Your task to perform on an android device: open app "Cash App" (install if not already installed), go to login, and select forgot password Image 0: 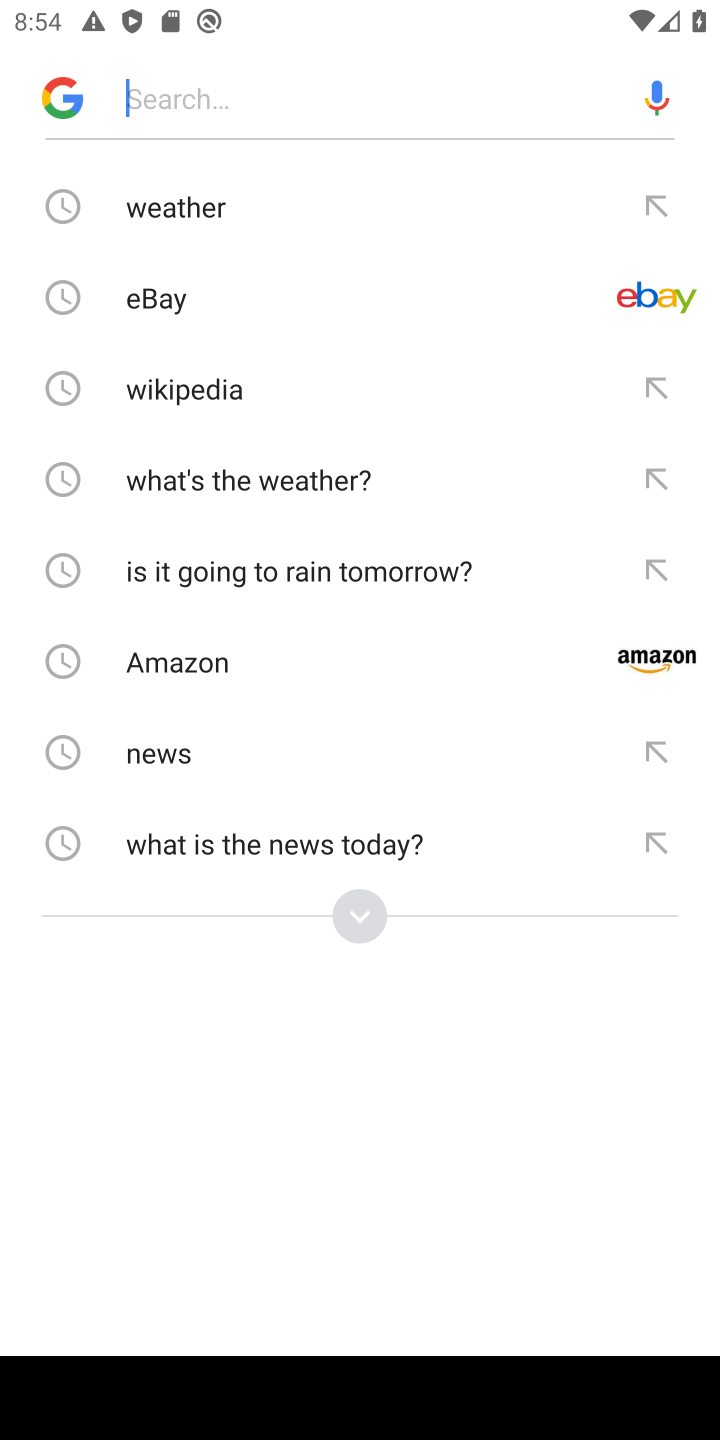
Step 0: press back button
Your task to perform on an android device: open app "Cash App" (install if not already installed), go to login, and select forgot password Image 1: 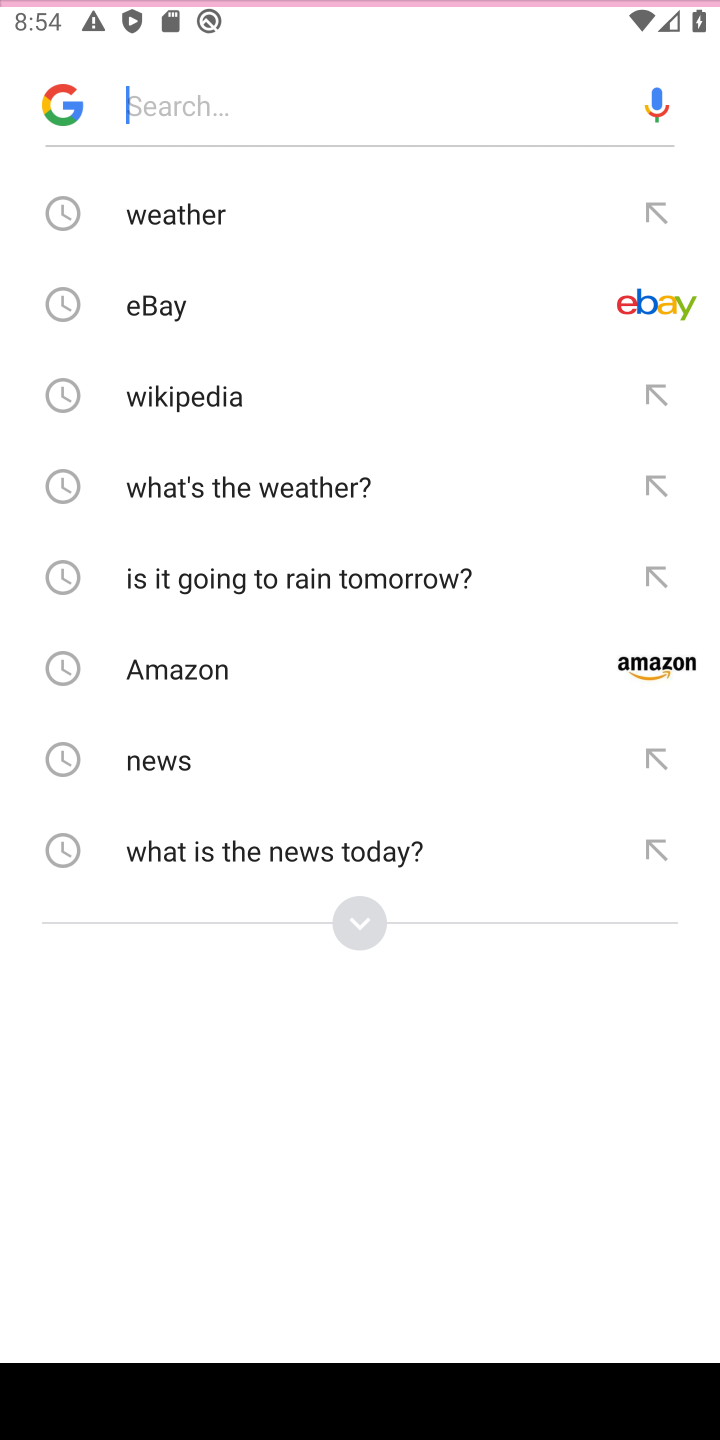
Step 1: press home button
Your task to perform on an android device: open app "Cash App" (install if not already installed), go to login, and select forgot password Image 2: 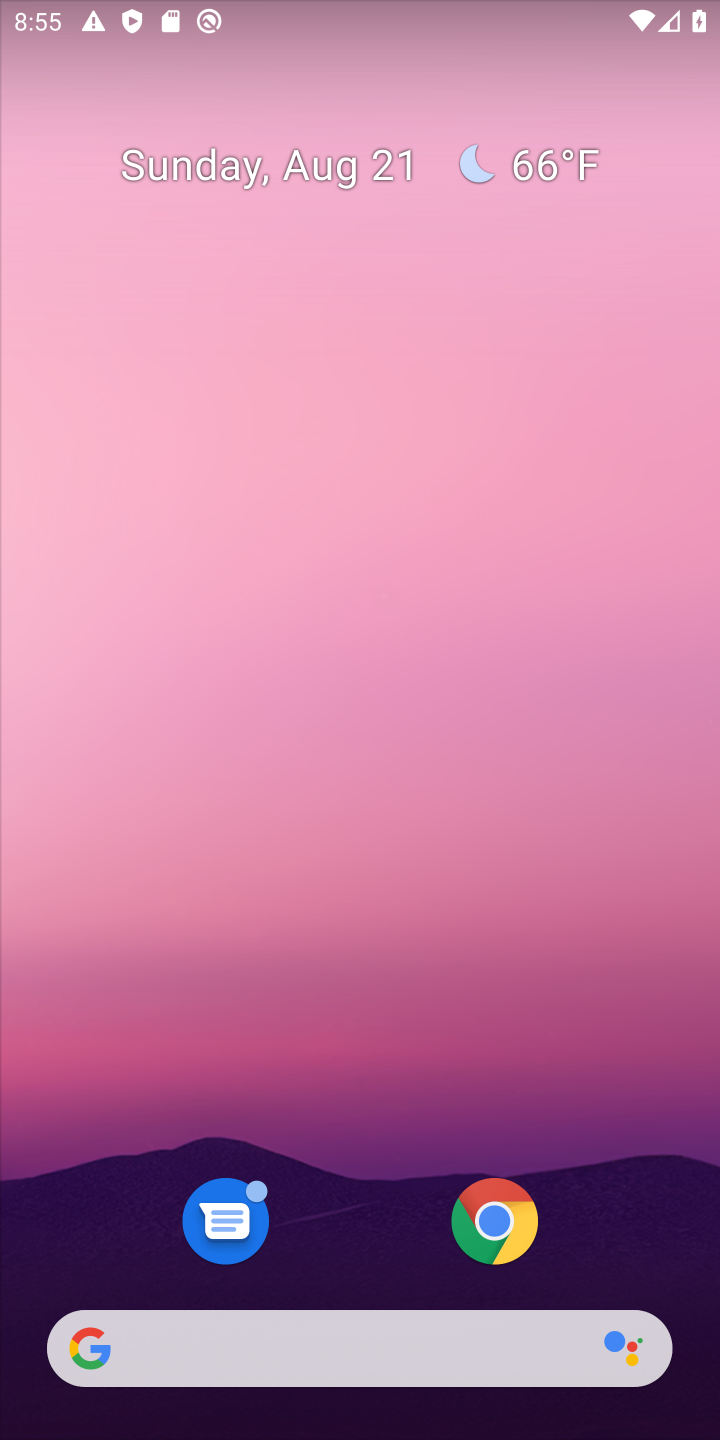
Step 2: drag from (352, 1155) to (457, 491)
Your task to perform on an android device: open app "Cash App" (install if not already installed), go to login, and select forgot password Image 3: 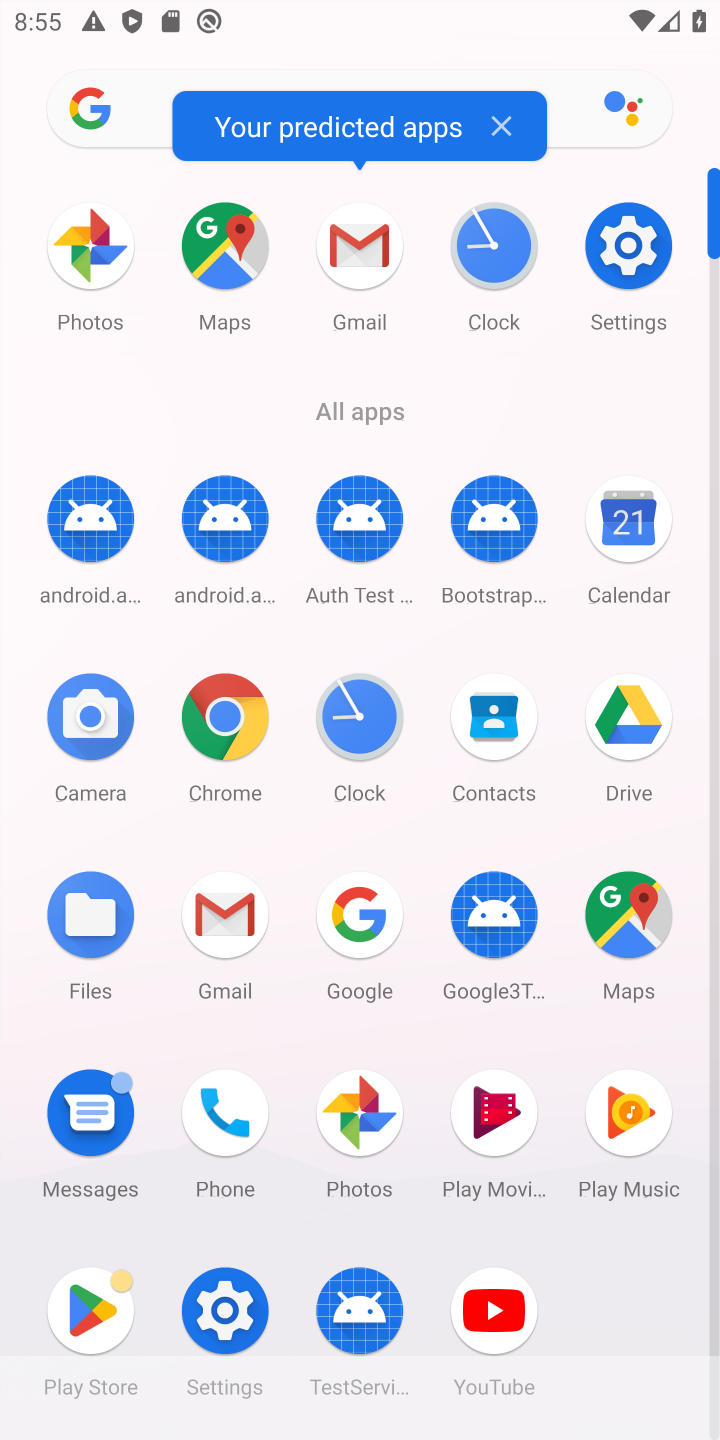
Step 3: click (106, 1303)
Your task to perform on an android device: open app "Cash App" (install if not already installed), go to login, and select forgot password Image 4: 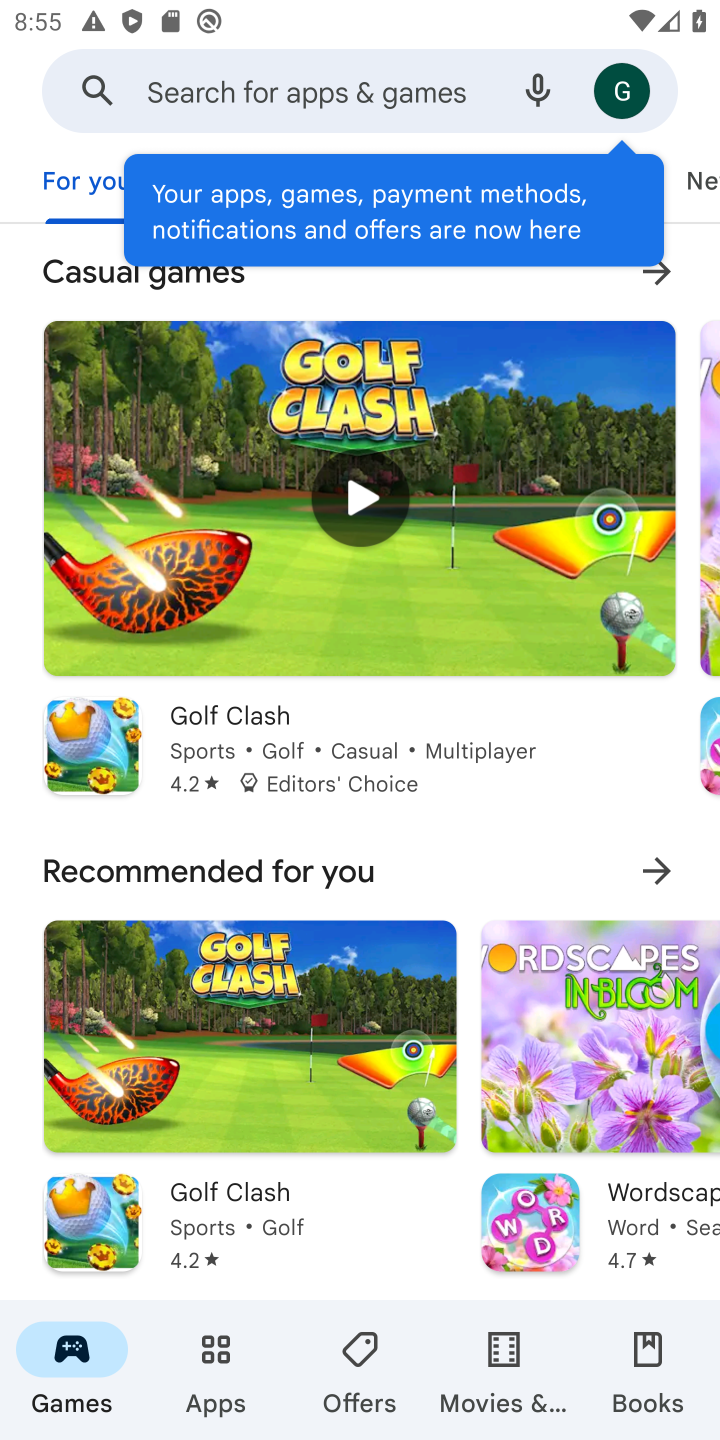
Step 4: click (279, 96)
Your task to perform on an android device: open app "Cash App" (install if not already installed), go to login, and select forgot password Image 5: 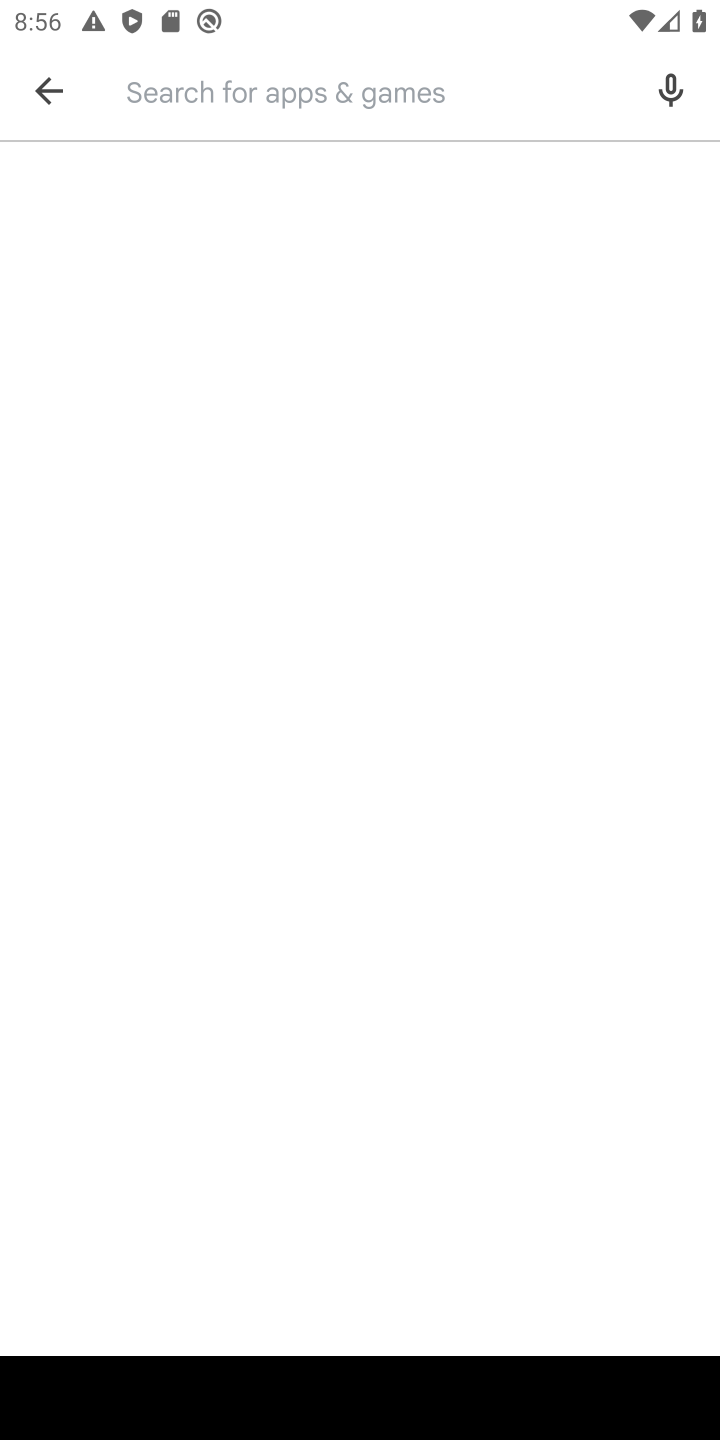
Step 5: type "Cash App"
Your task to perform on an android device: open app "Cash App" (install if not already installed), go to login, and select forgot password Image 6: 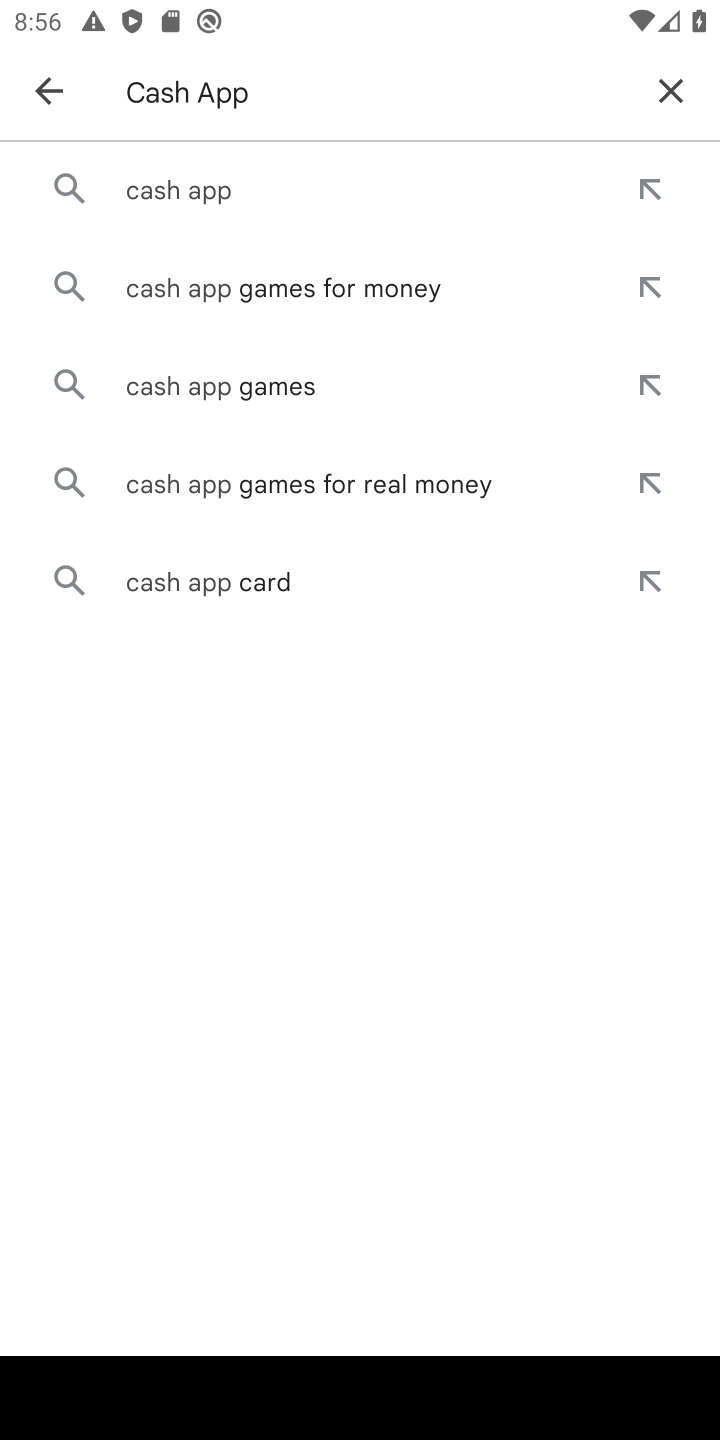
Step 6: type "Cash App"
Your task to perform on an android device: open app "Cash App" (install if not already installed), go to login, and select forgot password Image 7: 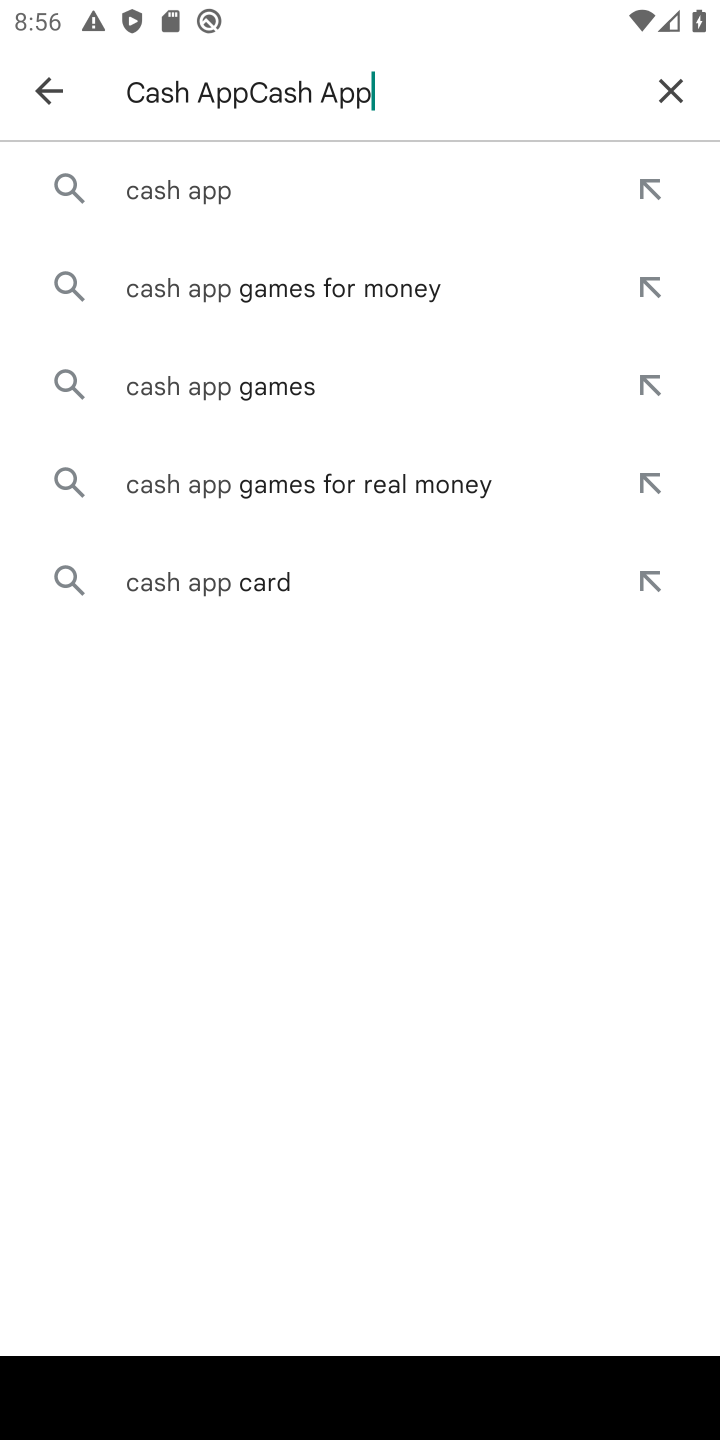
Step 7: type ""
Your task to perform on an android device: open app "Cash App" (install if not already installed), go to login, and select forgot password Image 8: 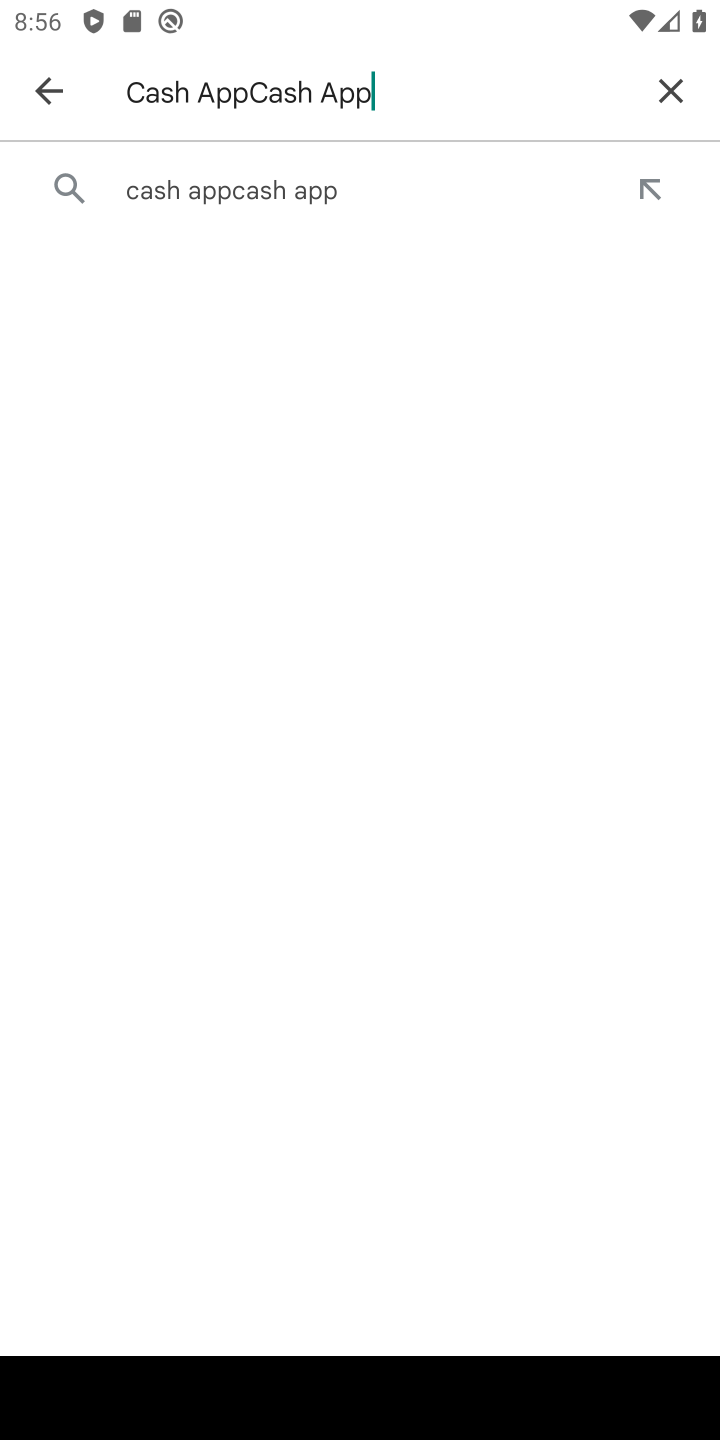
Step 8: click (289, 204)
Your task to perform on an android device: open app "Cash App" (install if not already installed), go to login, and select forgot password Image 9: 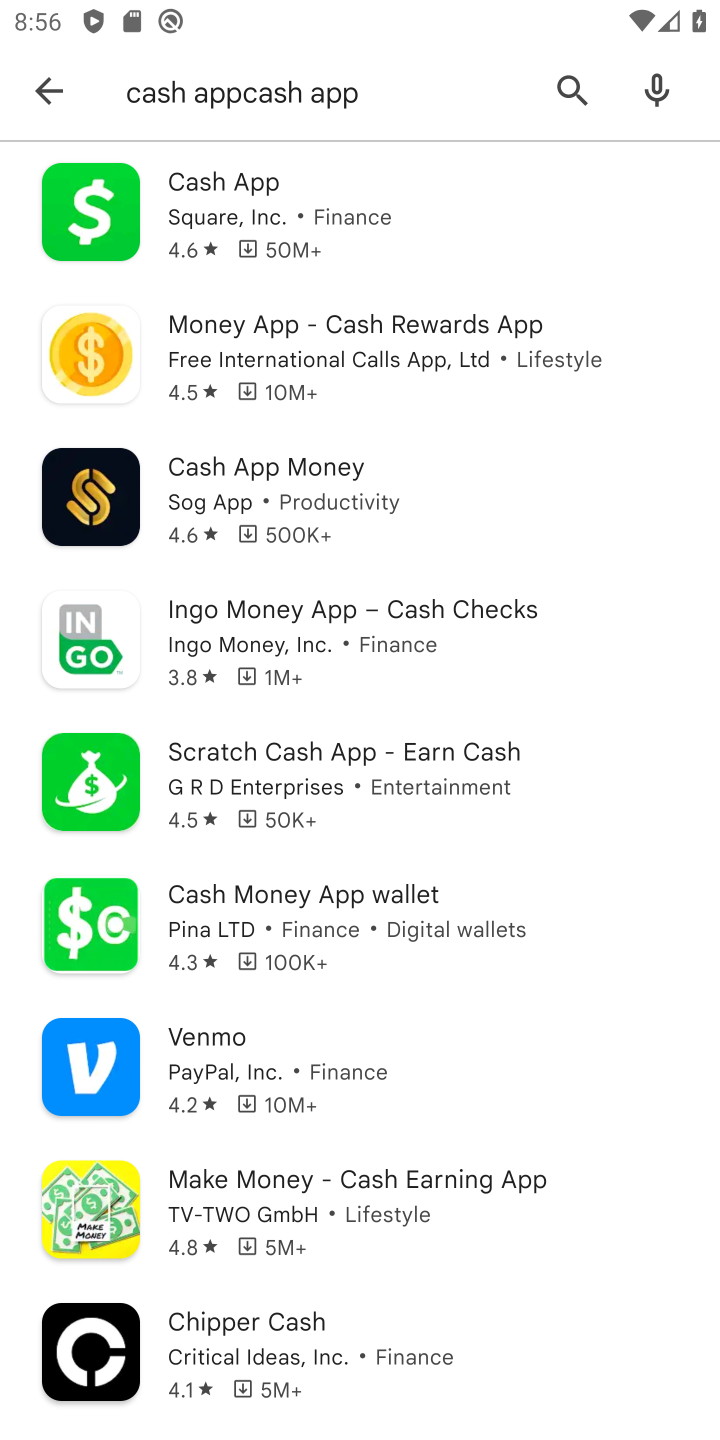
Step 9: click (289, 204)
Your task to perform on an android device: open app "Cash App" (install if not already installed), go to login, and select forgot password Image 10: 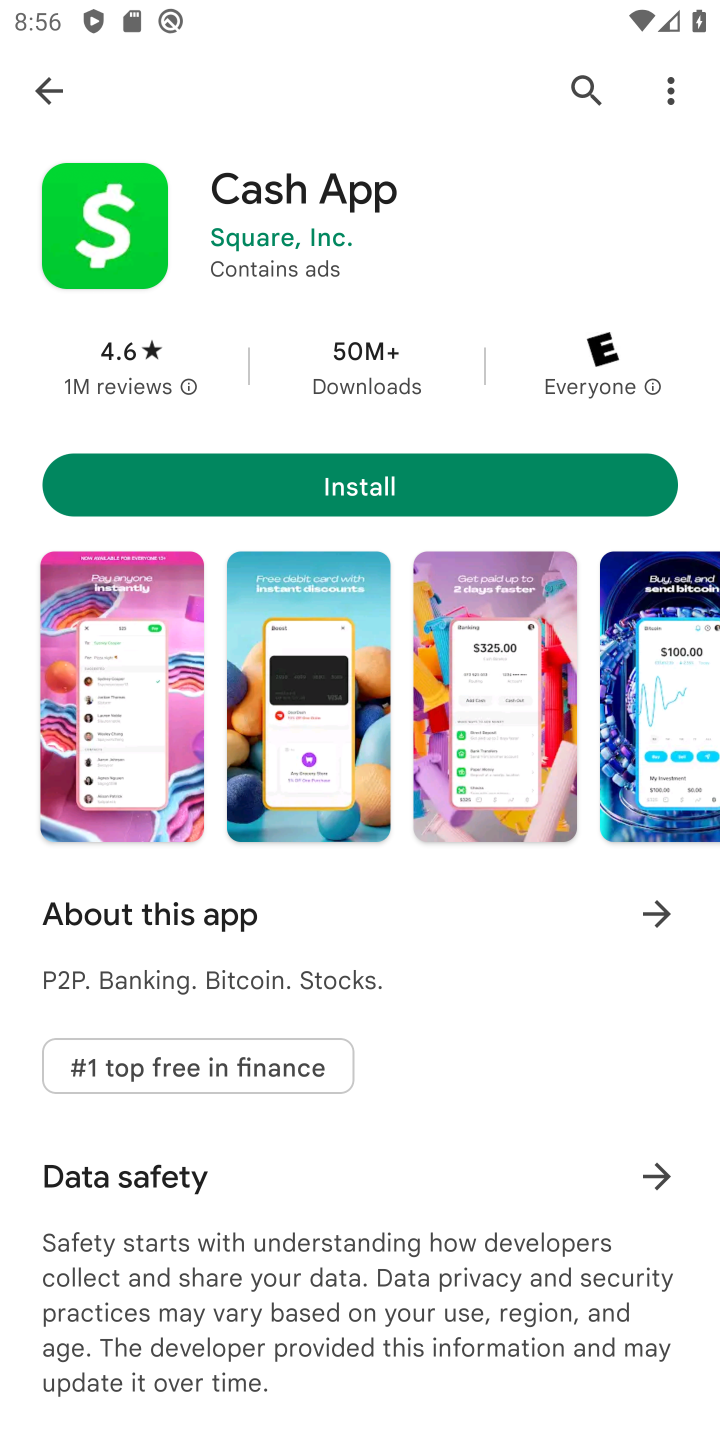
Step 10: click (399, 461)
Your task to perform on an android device: open app "Cash App" (install if not already installed), go to login, and select forgot password Image 11: 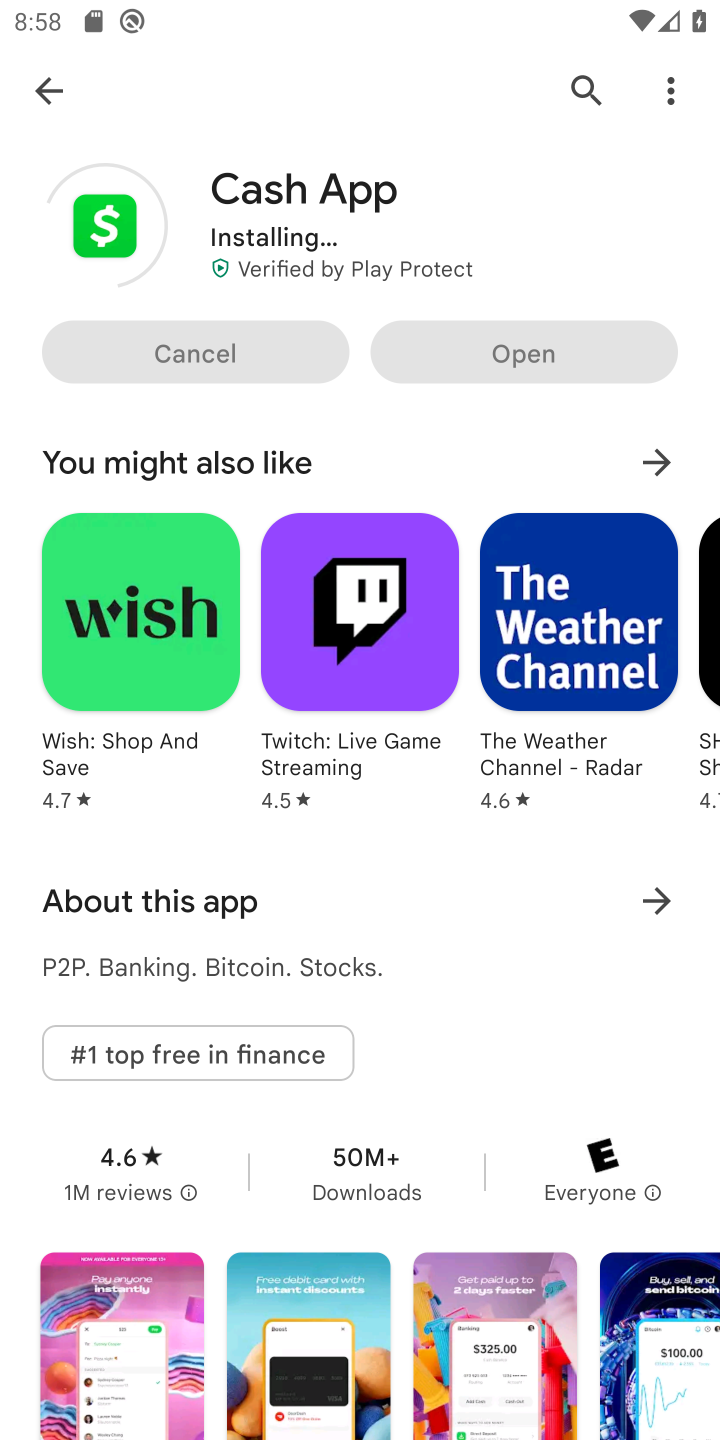
Step 11: task complete